Your task to perform on an android device: turn on notifications settings in the gmail app Image 0: 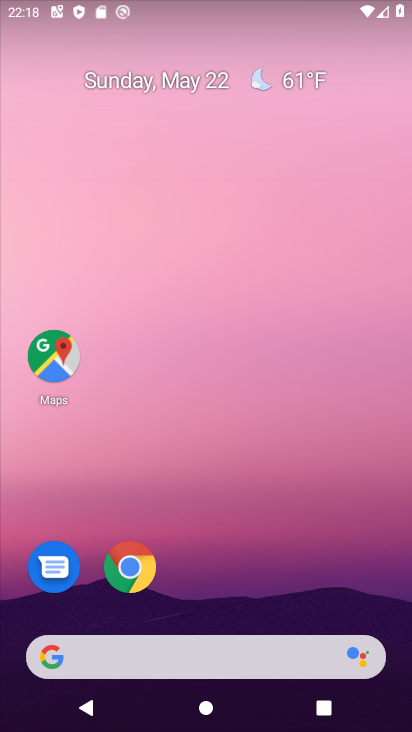
Step 0: drag from (179, 621) to (152, 0)
Your task to perform on an android device: turn on notifications settings in the gmail app Image 1: 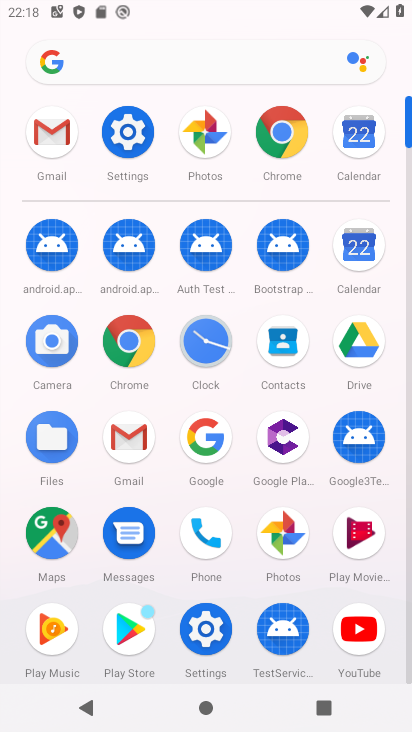
Step 1: click (131, 141)
Your task to perform on an android device: turn on notifications settings in the gmail app Image 2: 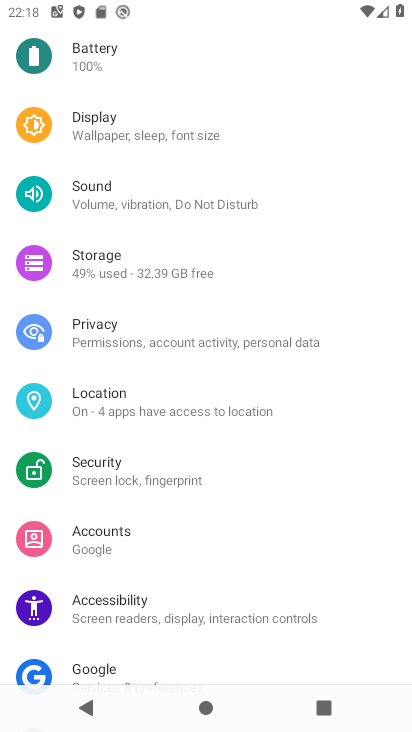
Step 2: press home button
Your task to perform on an android device: turn on notifications settings in the gmail app Image 3: 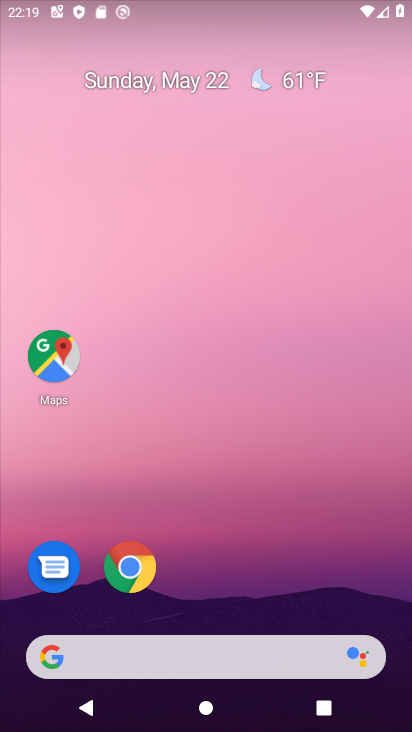
Step 3: drag from (218, 639) to (301, 27)
Your task to perform on an android device: turn on notifications settings in the gmail app Image 4: 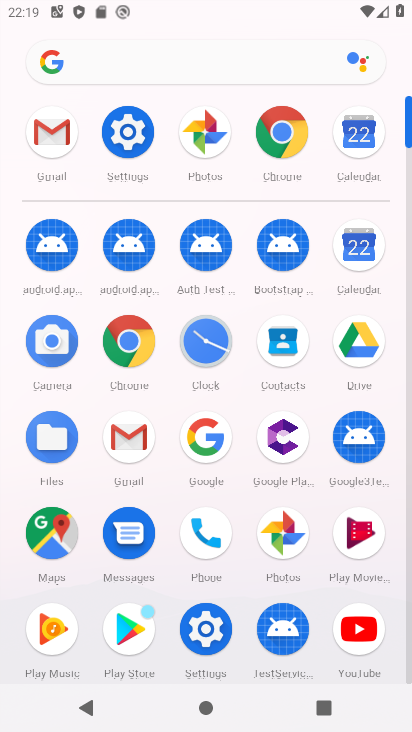
Step 4: click (126, 445)
Your task to perform on an android device: turn on notifications settings in the gmail app Image 5: 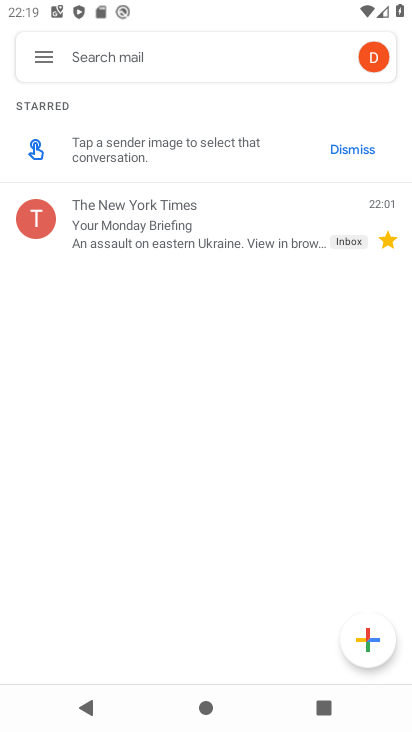
Step 5: click (52, 46)
Your task to perform on an android device: turn on notifications settings in the gmail app Image 6: 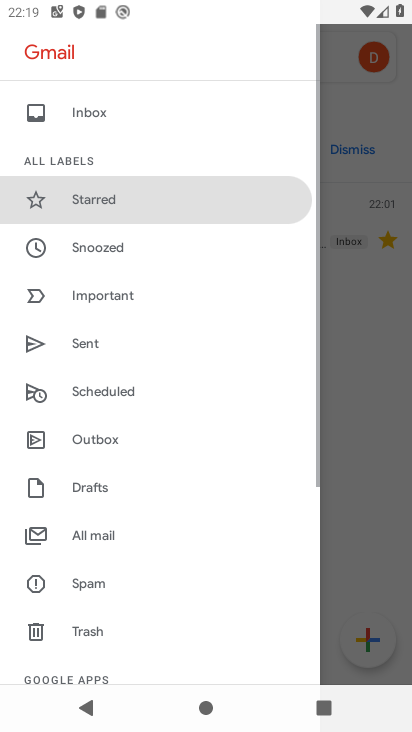
Step 6: drag from (157, 636) to (123, 117)
Your task to perform on an android device: turn on notifications settings in the gmail app Image 7: 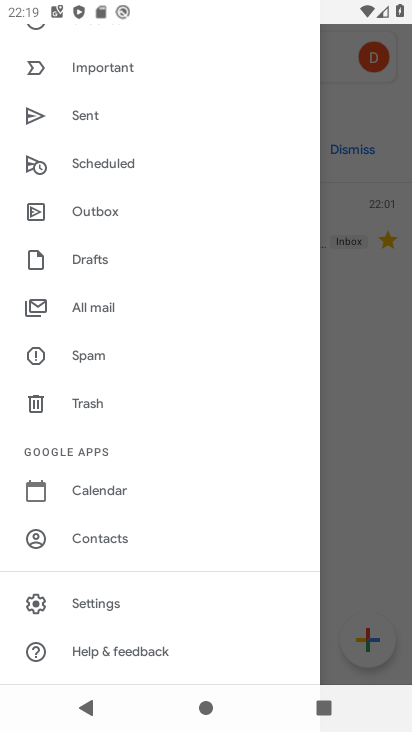
Step 7: click (117, 603)
Your task to perform on an android device: turn on notifications settings in the gmail app Image 8: 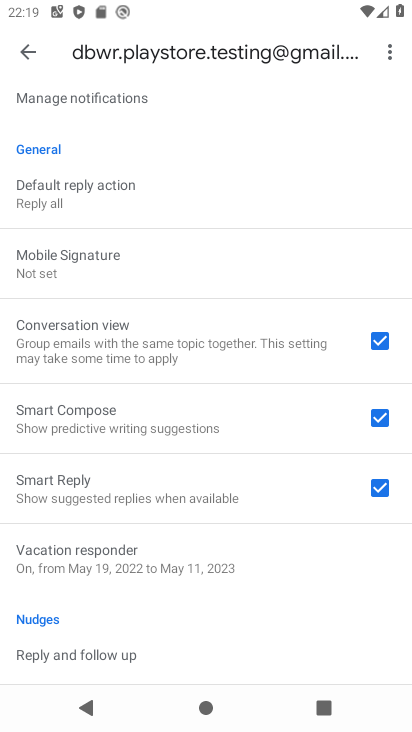
Step 8: click (24, 62)
Your task to perform on an android device: turn on notifications settings in the gmail app Image 9: 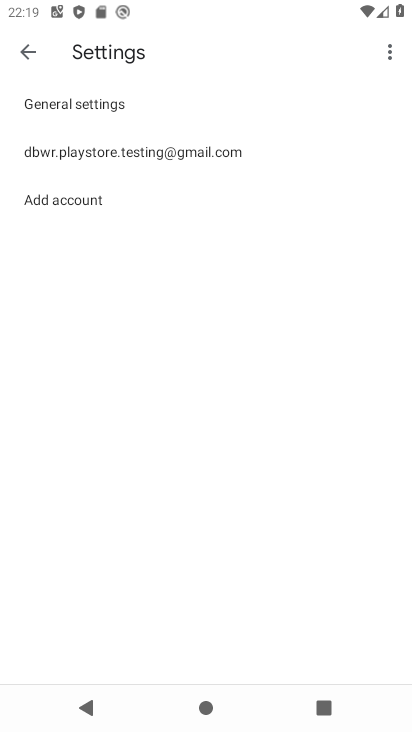
Step 9: click (65, 99)
Your task to perform on an android device: turn on notifications settings in the gmail app Image 10: 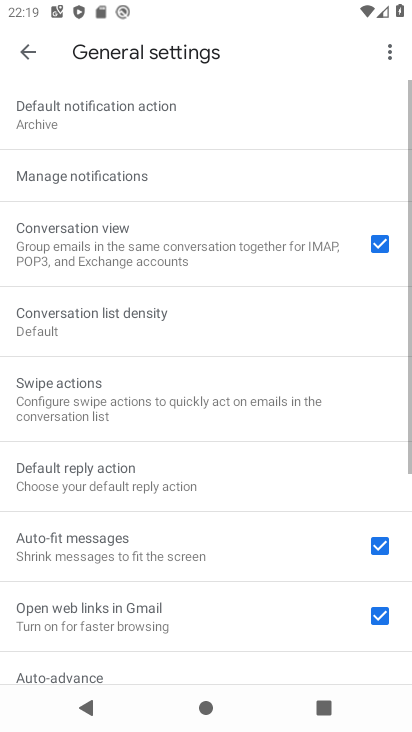
Step 10: click (121, 187)
Your task to perform on an android device: turn on notifications settings in the gmail app Image 11: 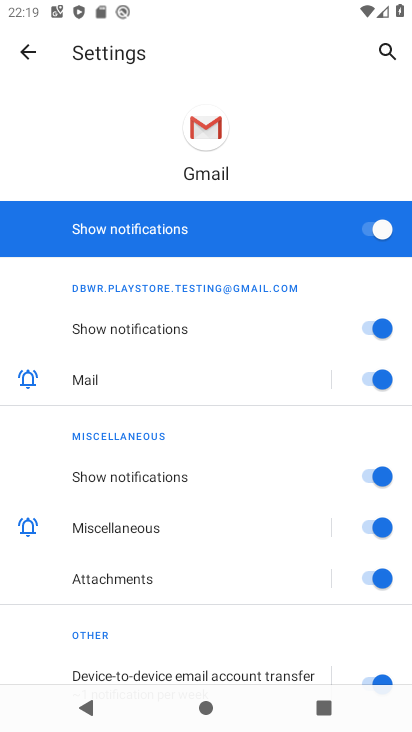
Step 11: task complete